Your task to perform on an android device: change timer sound Image 0: 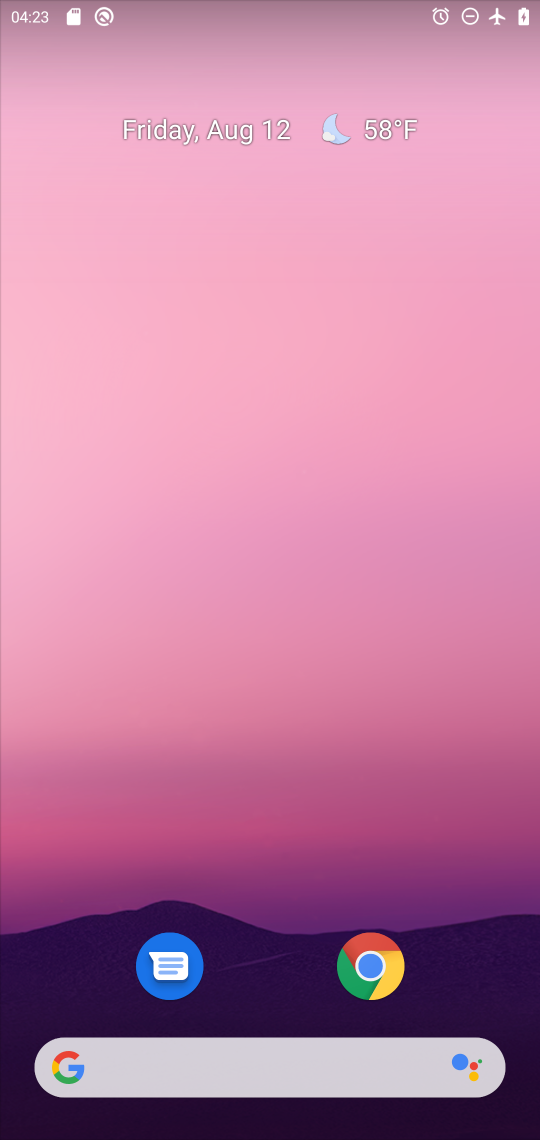
Step 0: drag from (333, 880) to (450, 60)
Your task to perform on an android device: change timer sound Image 1: 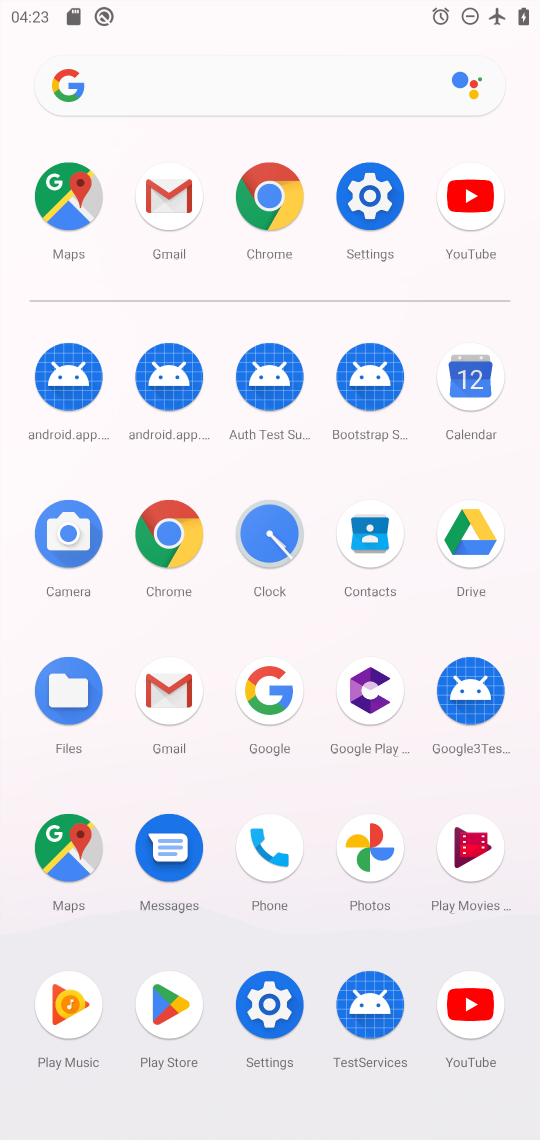
Step 1: click (269, 532)
Your task to perform on an android device: change timer sound Image 2: 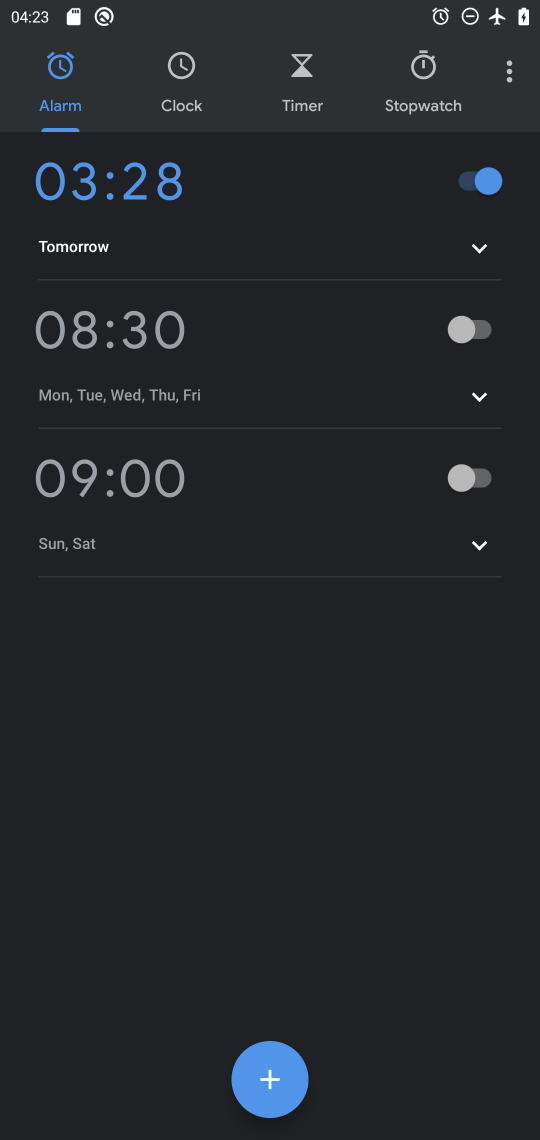
Step 2: click (512, 75)
Your task to perform on an android device: change timer sound Image 3: 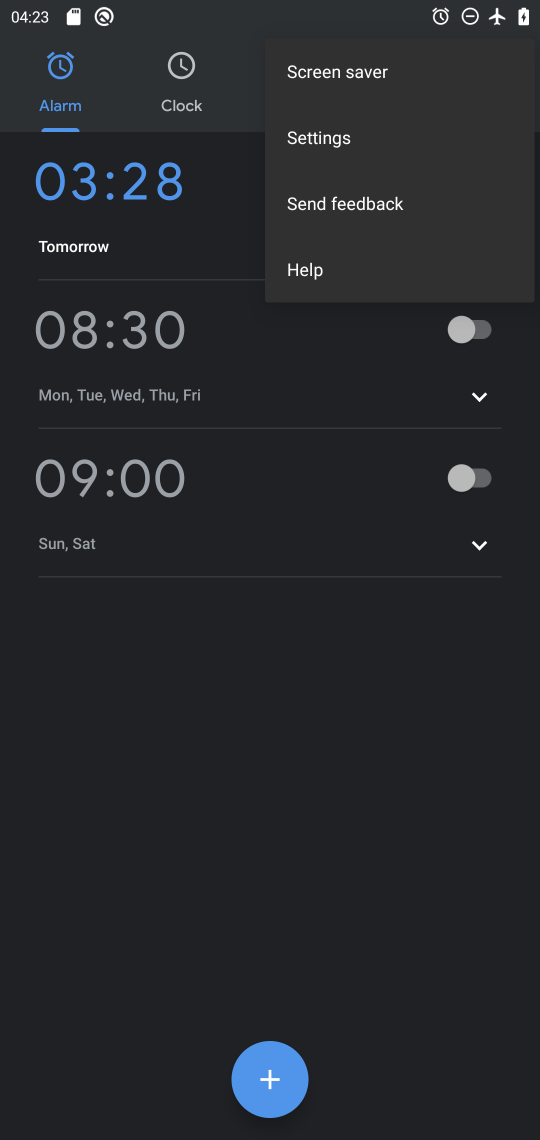
Step 3: click (359, 143)
Your task to perform on an android device: change timer sound Image 4: 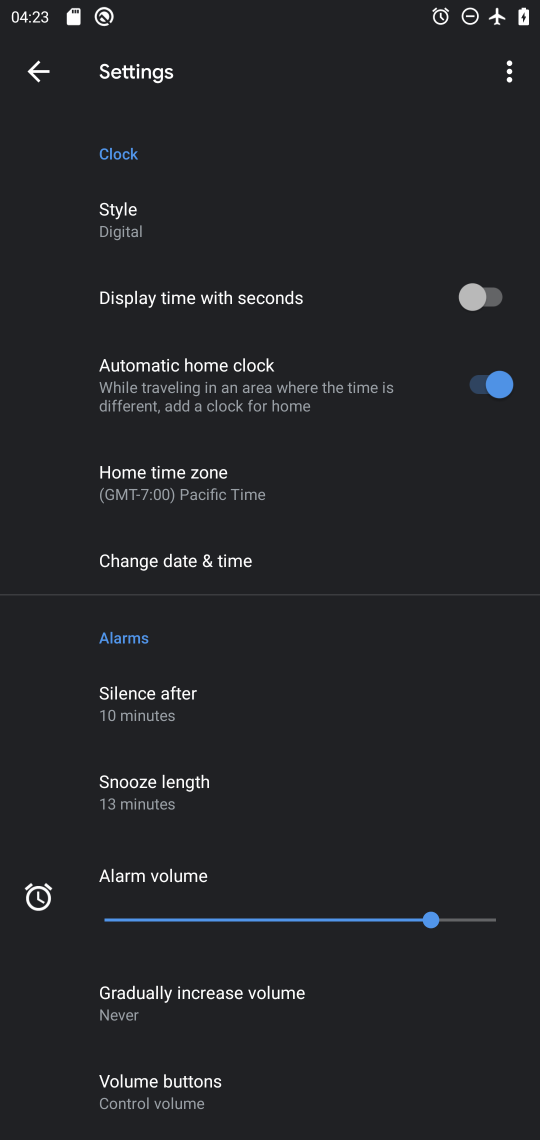
Step 4: drag from (391, 1020) to (470, 365)
Your task to perform on an android device: change timer sound Image 5: 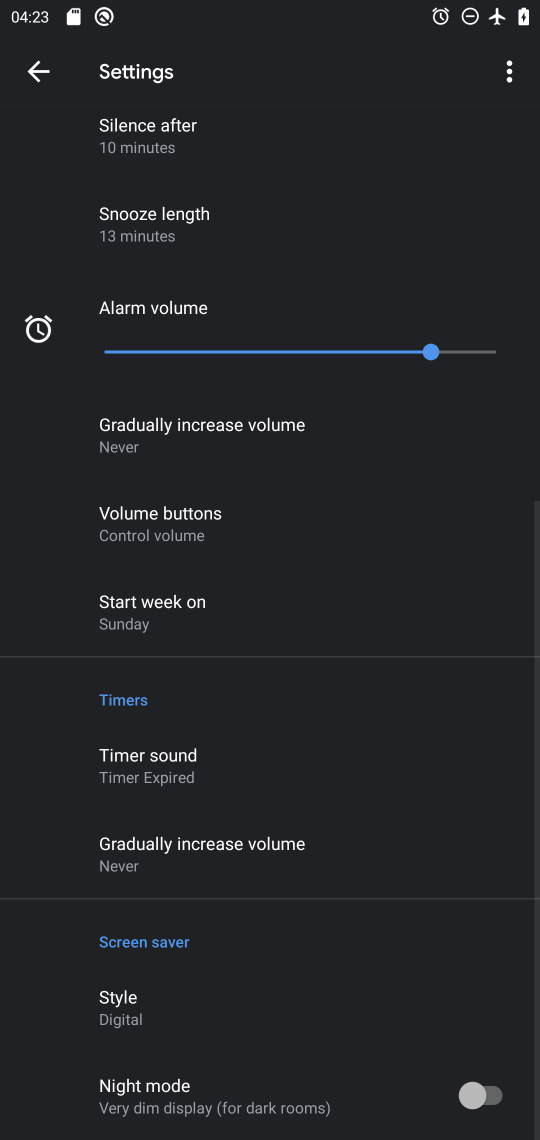
Step 5: click (193, 747)
Your task to perform on an android device: change timer sound Image 6: 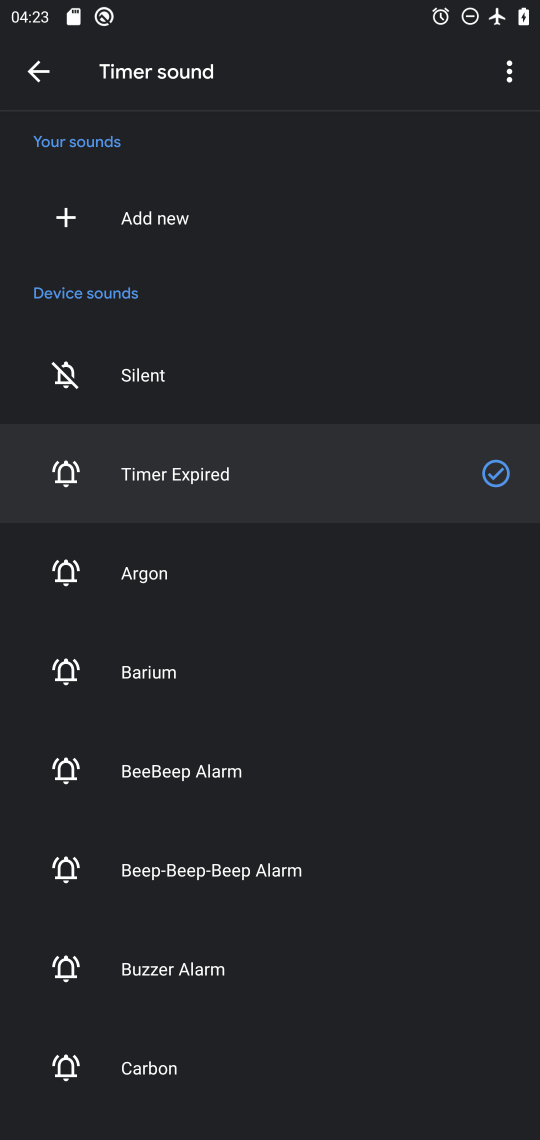
Step 6: click (131, 571)
Your task to perform on an android device: change timer sound Image 7: 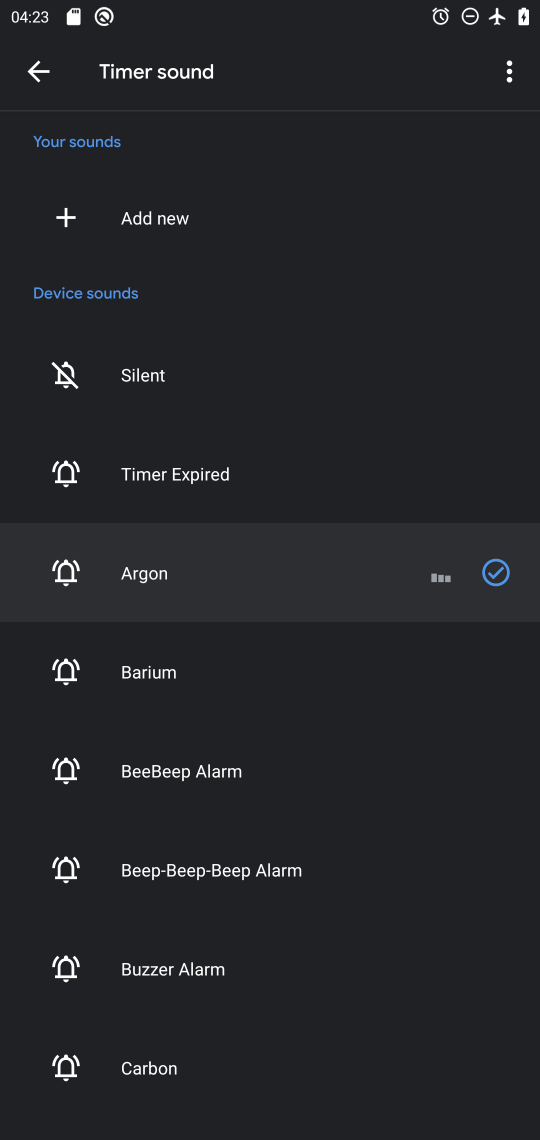
Step 7: task complete